Your task to perform on an android device: Open settings Image 0: 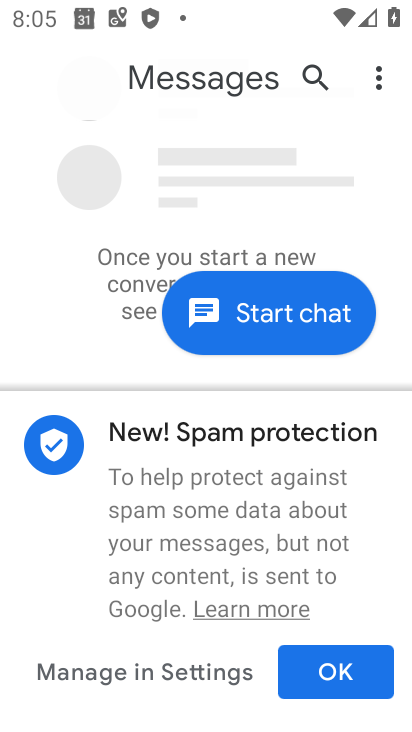
Step 0: press home button
Your task to perform on an android device: Open settings Image 1: 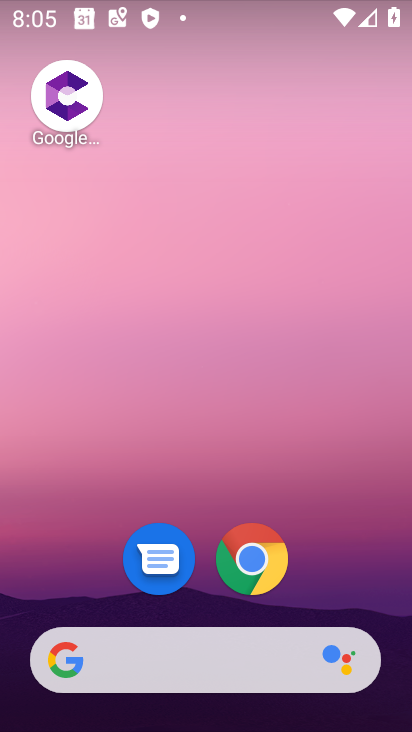
Step 1: drag from (202, 720) to (166, 119)
Your task to perform on an android device: Open settings Image 2: 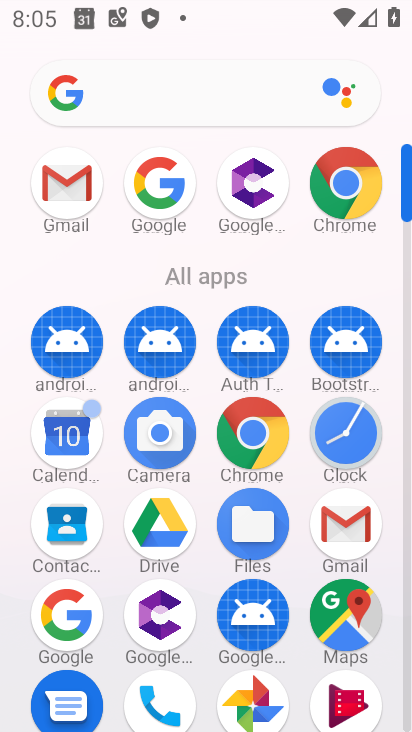
Step 2: drag from (21, 561) to (13, 288)
Your task to perform on an android device: Open settings Image 3: 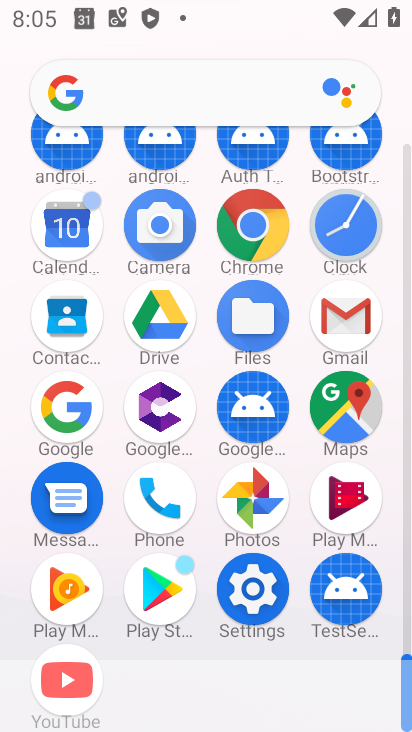
Step 3: click (256, 597)
Your task to perform on an android device: Open settings Image 4: 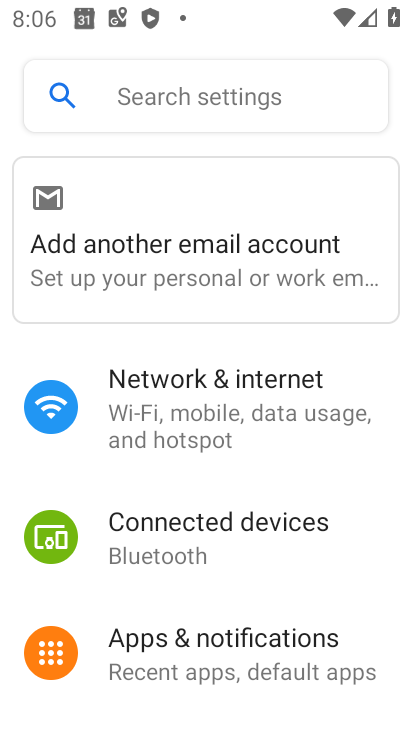
Step 4: task complete